Your task to perform on an android device: install app "Grab" Image 0: 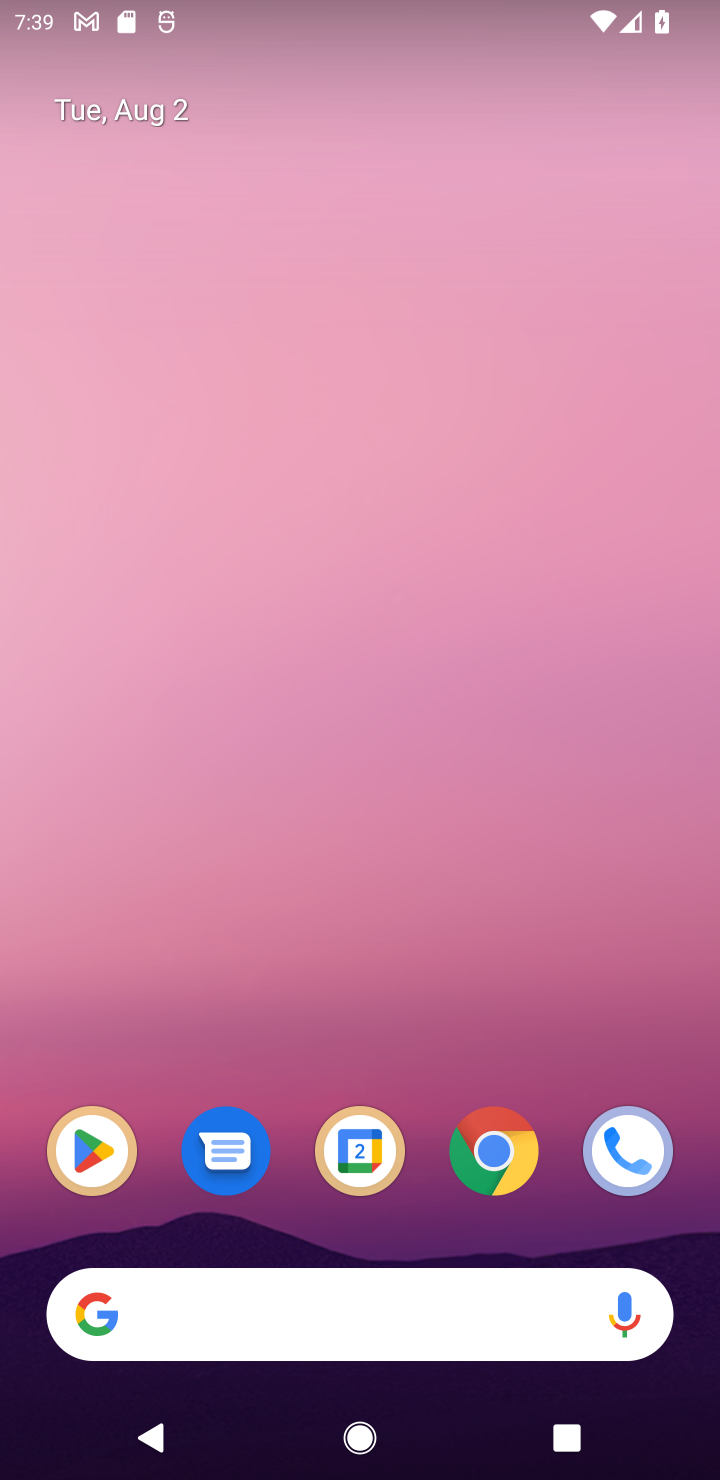
Step 0: drag from (324, 1245) to (221, 53)
Your task to perform on an android device: install app "Grab" Image 1: 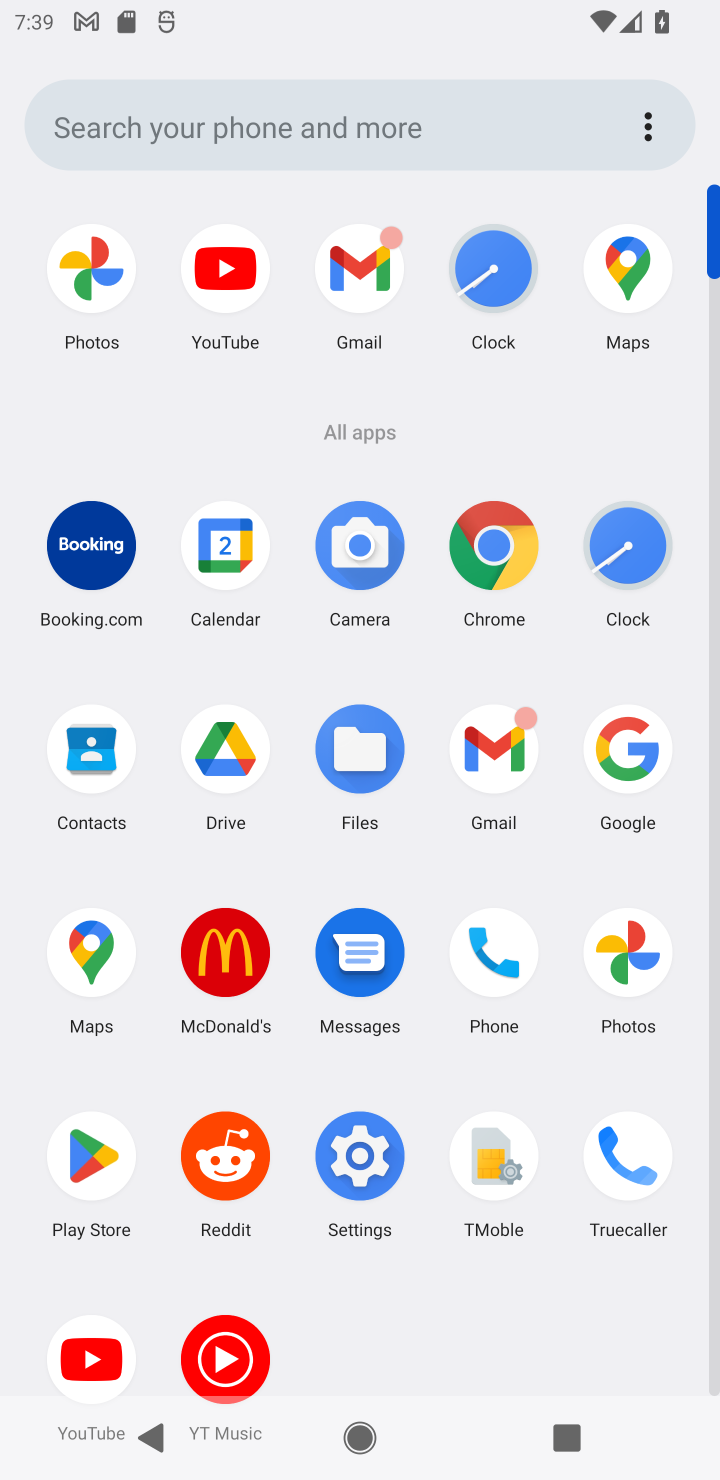
Step 1: click (101, 1126)
Your task to perform on an android device: install app "Grab" Image 2: 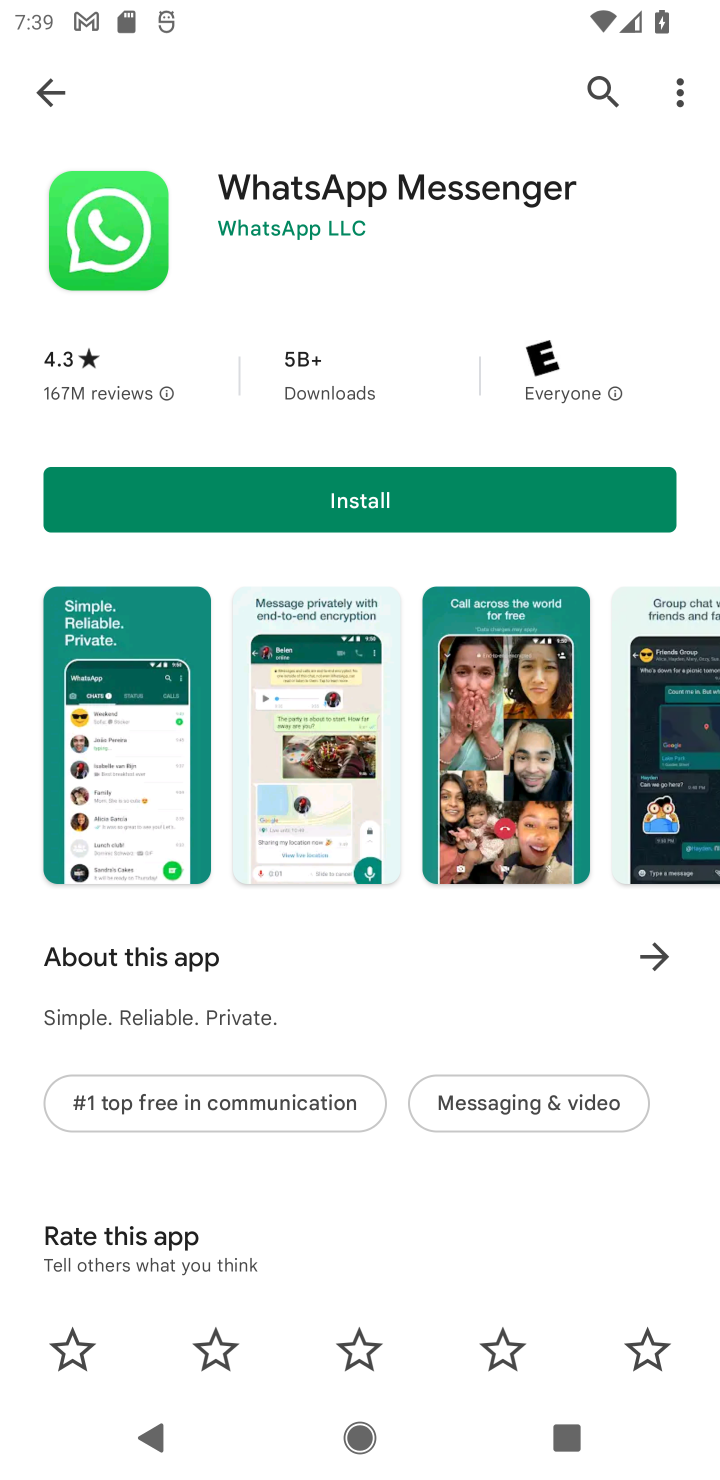
Step 2: click (50, 115)
Your task to perform on an android device: install app "Grab" Image 3: 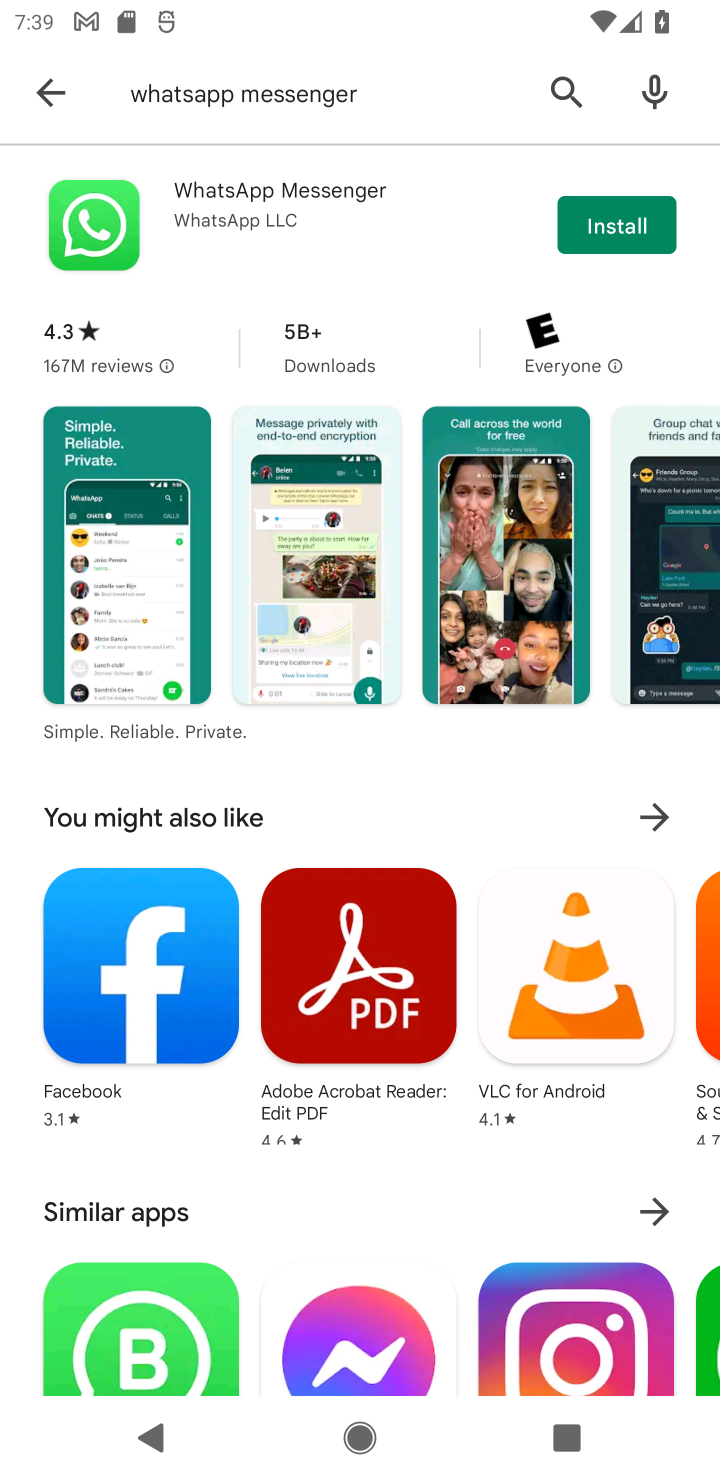
Step 3: click (77, 94)
Your task to perform on an android device: install app "Grab" Image 4: 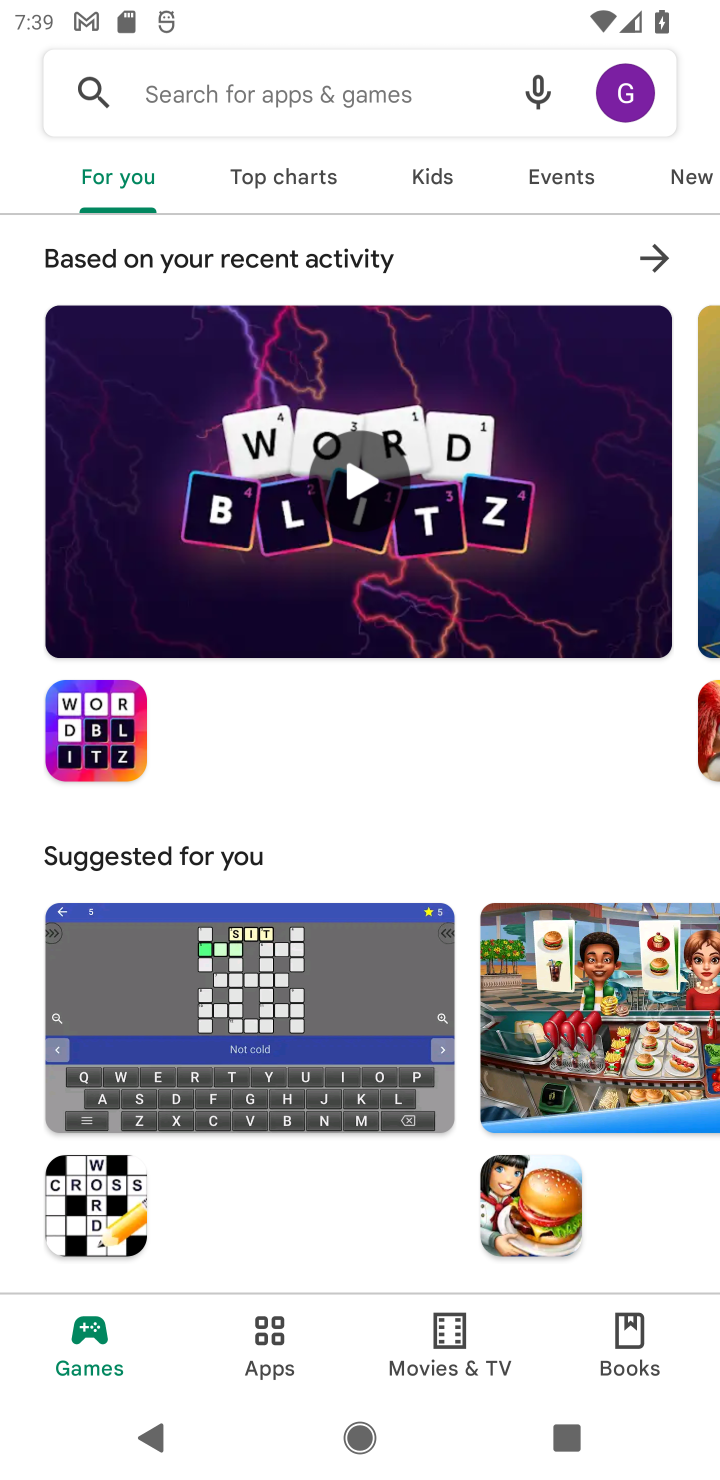
Step 4: click (209, 89)
Your task to perform on an android device: install app "Grab" Image 5: 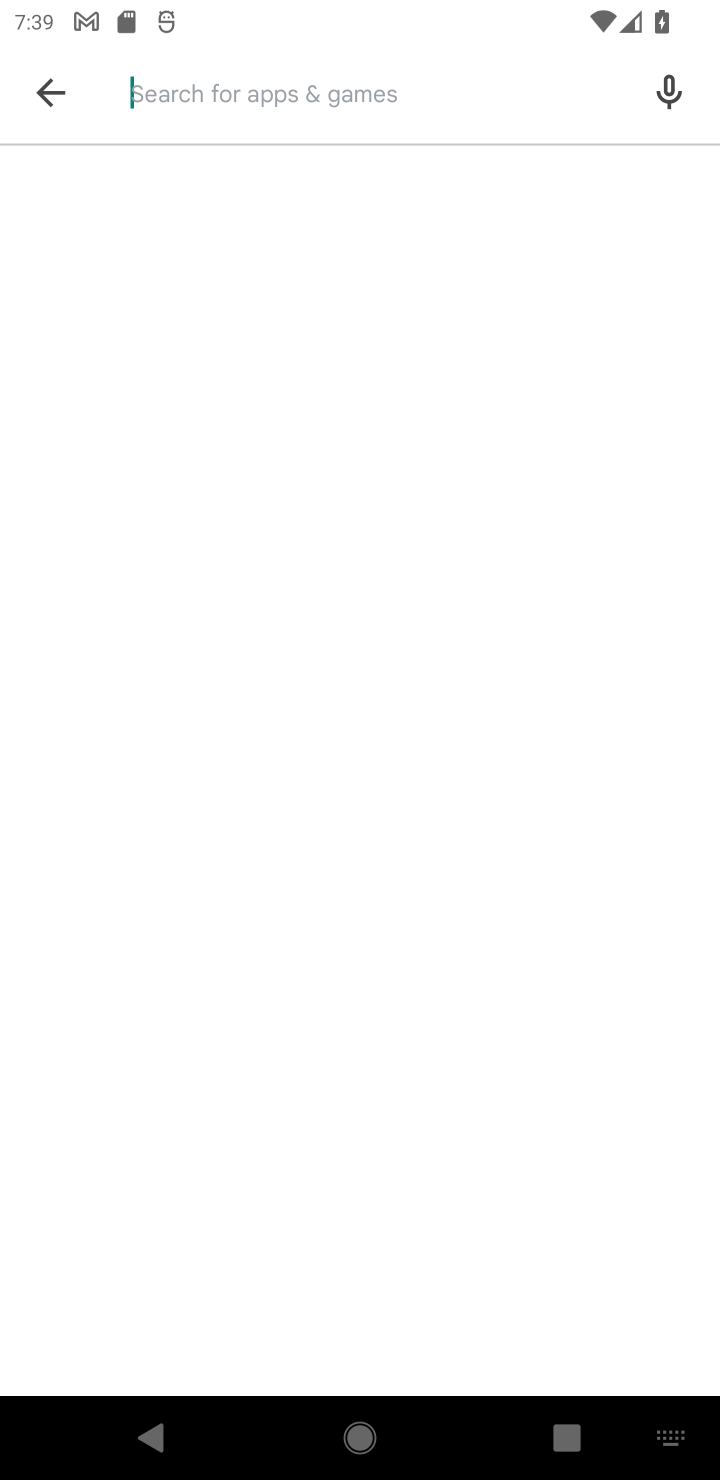
Step 5: drag from (696, 1326) to (682, 1428)
Your task to perform on an android device: install app "Grab" Image 6: 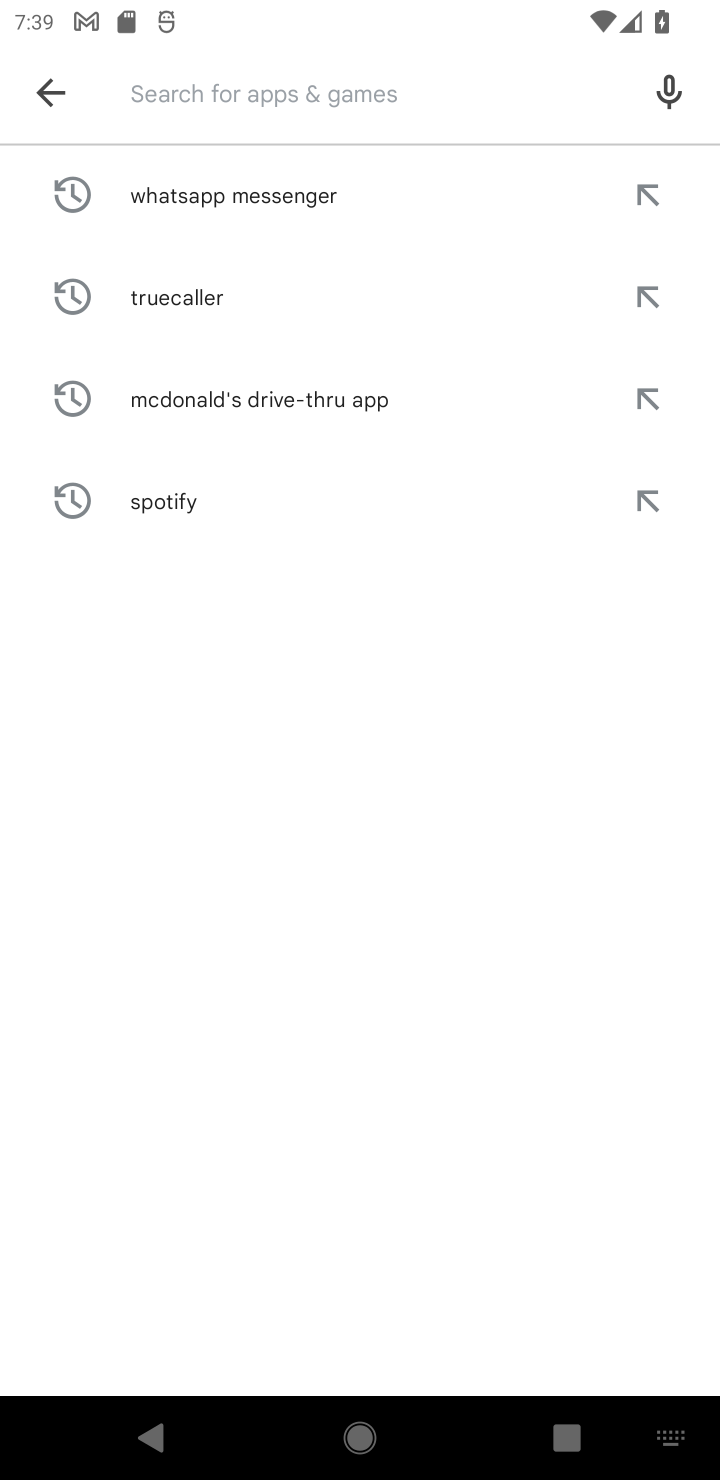
Step 6: type "Grab"
Your task to perform on an android device: install app "Grab" Image 7: 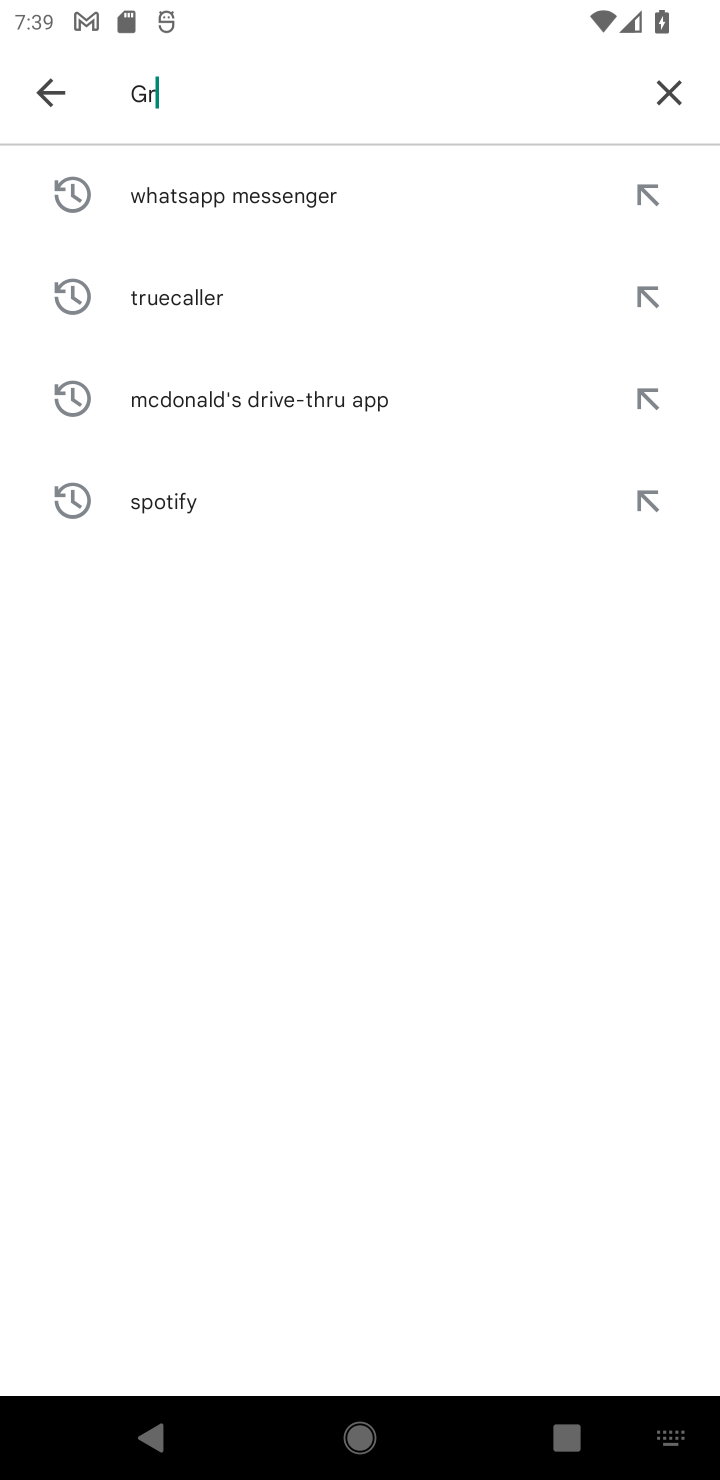
Step 7: type ""
Your task to perform on an android device: install app "Grab" Image 8: 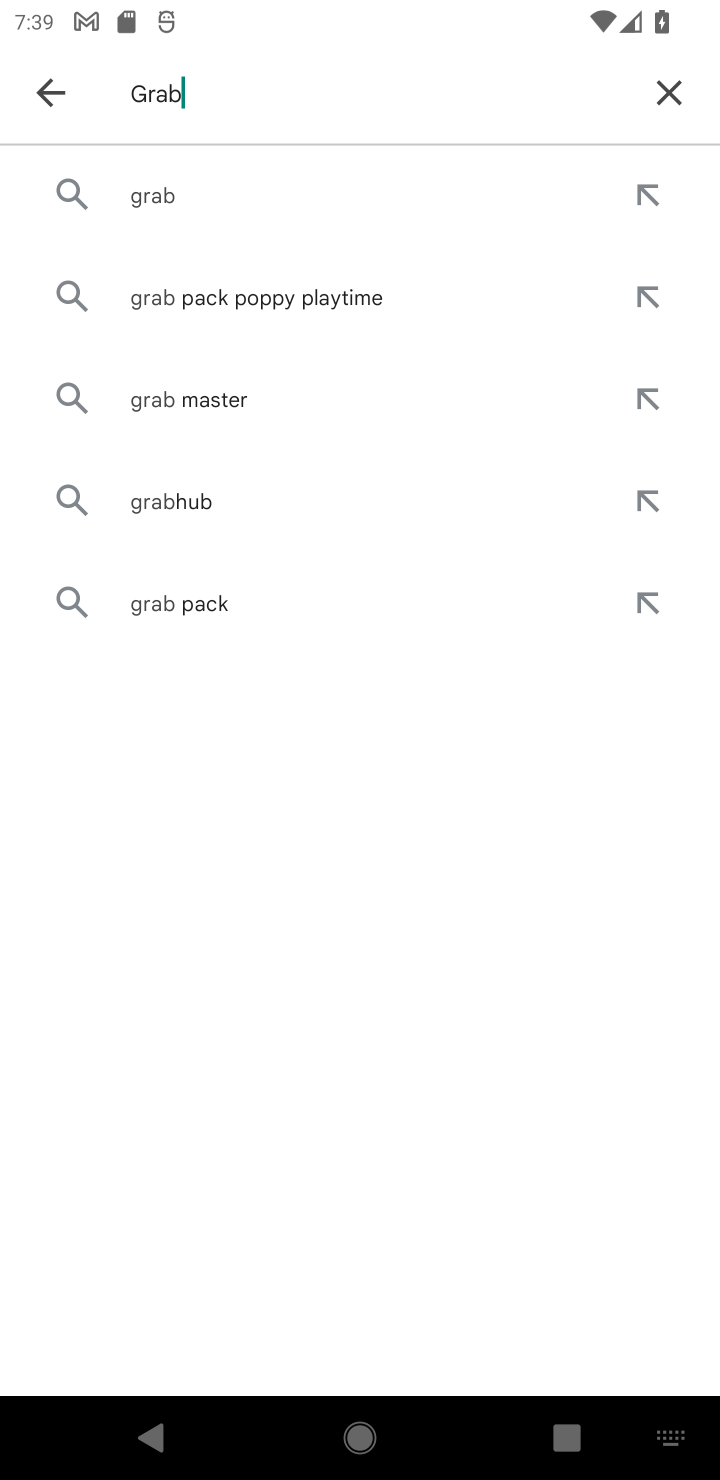
Step 8: click (132, 200)
Your task to perform on an android device: install app "Grab" Image 9: 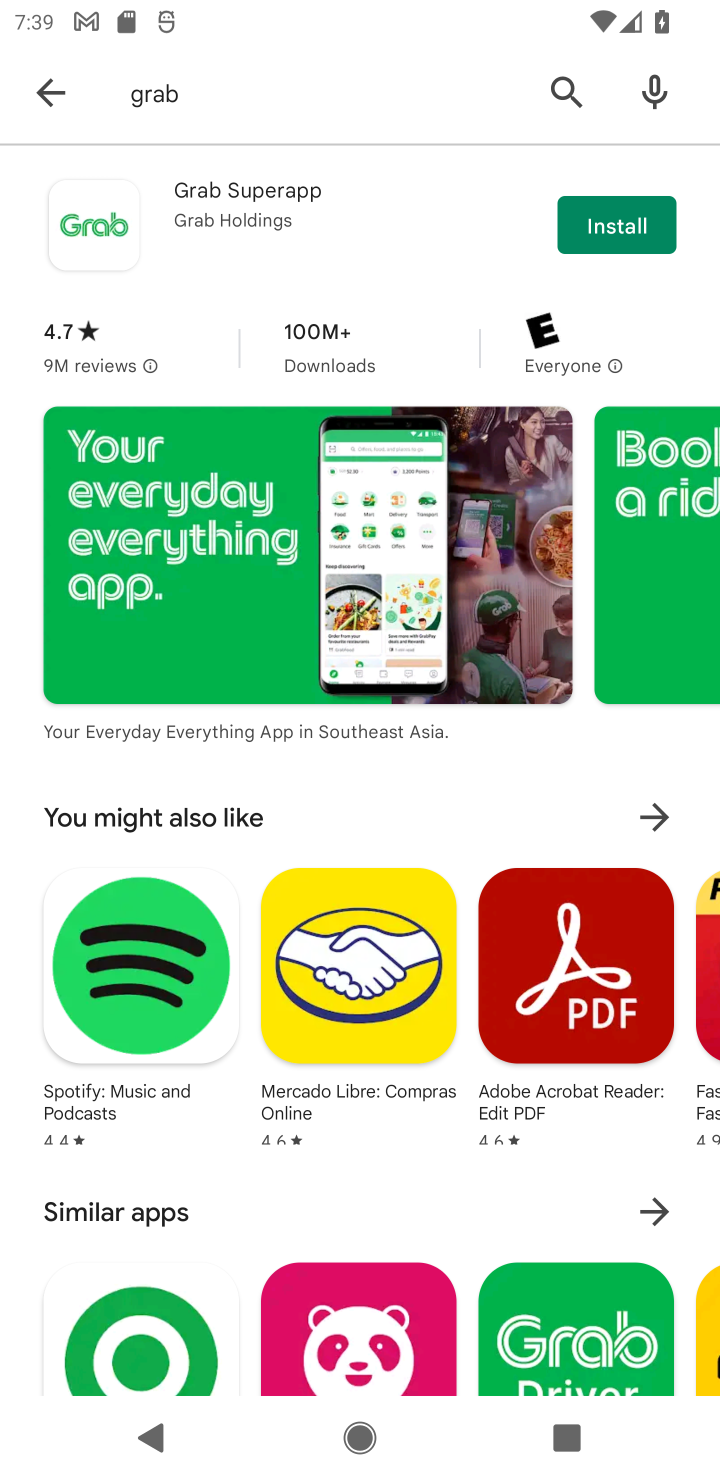
Step 9: click (582, 232)
Your task to perform on an android device: install app "Grab" Image 10: 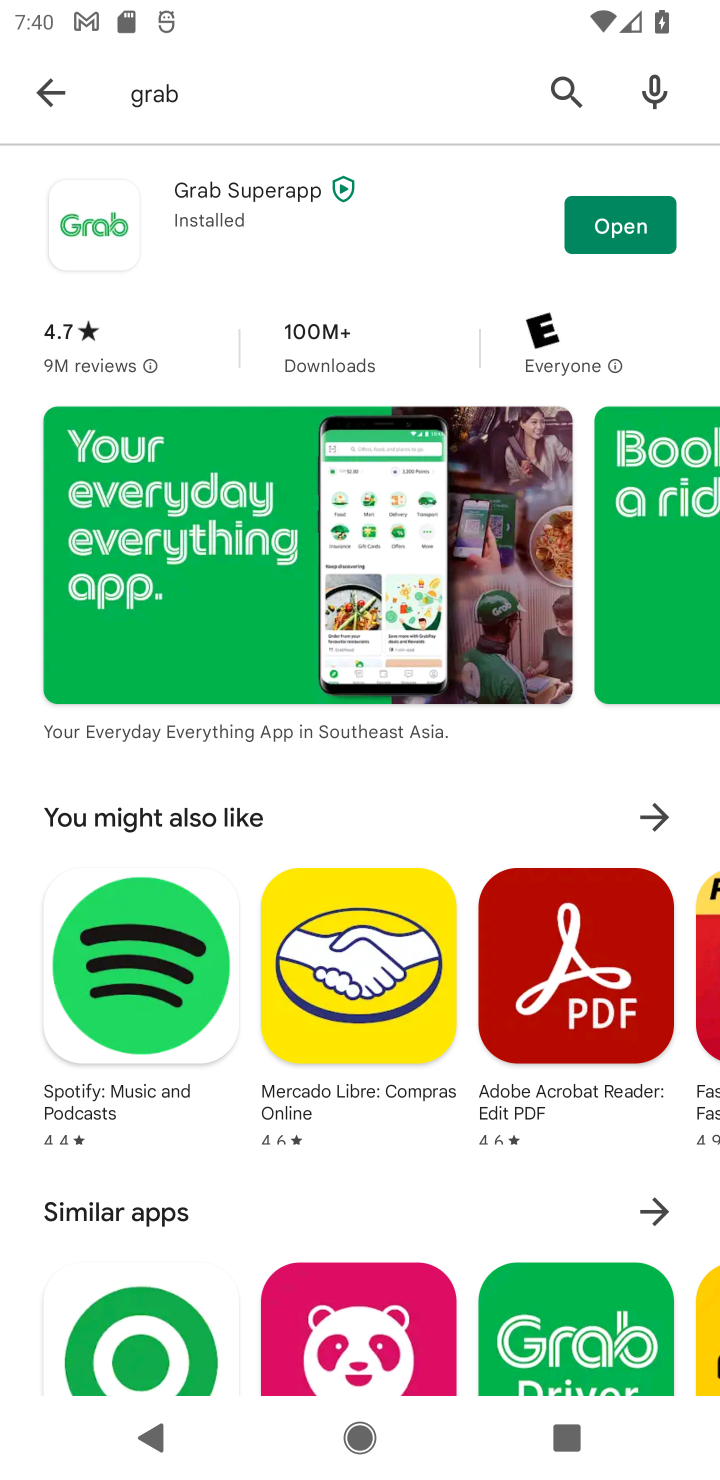
Step 10: task complete